Your task to perform on an android device: star an email in the gmail app Image 0: 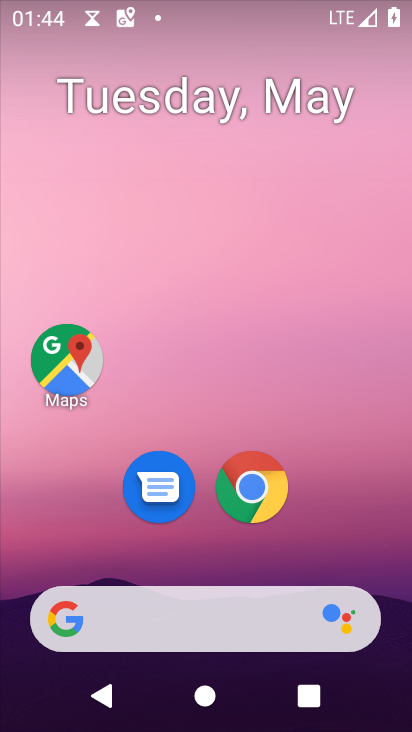
Step 0: drag from (198, 547) to (109, 32)
Your task to perform on an android device: star an email in the gmail app Image 1: 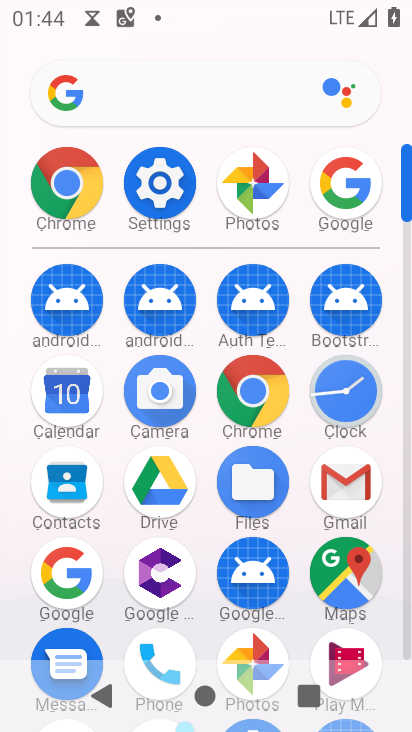
Step 1: drag from (235, 648) to (174, 318)
Your task to perform on an android device: star an email in the gmail app Image 2: 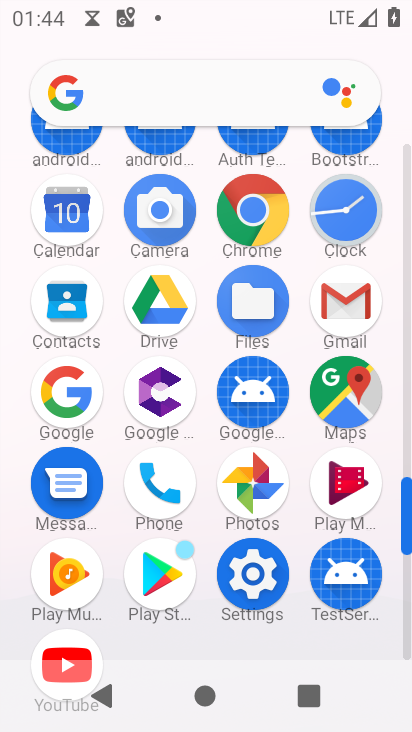
Step 2: drag from (163, 247) to (224, 656)
Your task to perform on an android device: star an email in the gmail app Image 3: 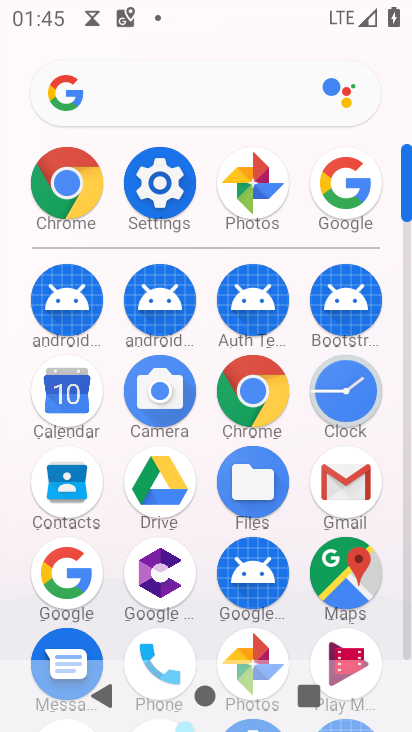
Step 3: click (327, 483)
Your task to perform on an android device: star an email in the gmail app Image 4: 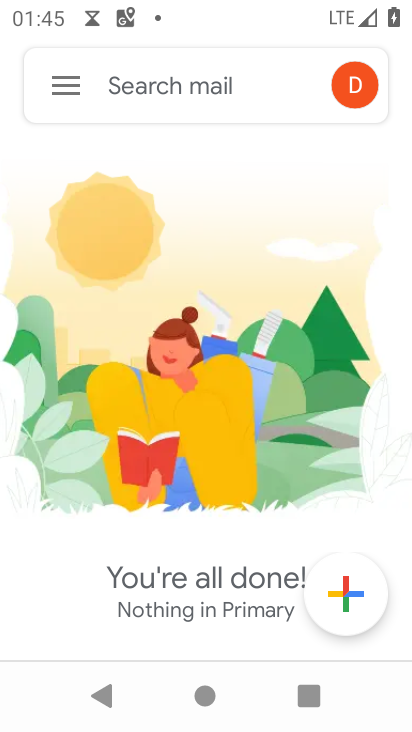
Step 4: click (70, 66)
Your task to perform on an android device: star an email in the gmail app Image 5: 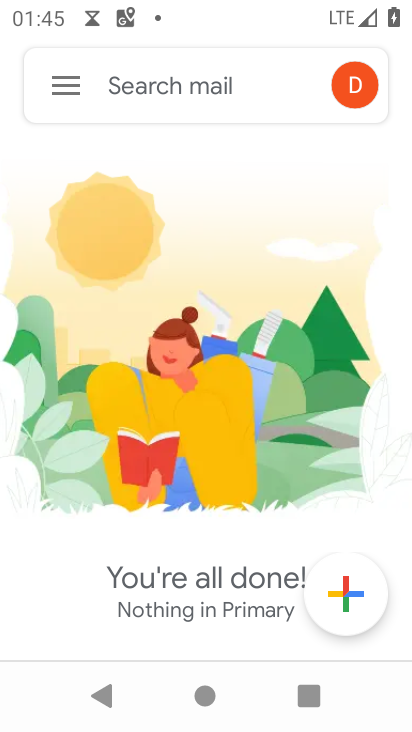
Step 5: task complete